Your task to perform on an android device: open chrome and create a bookmark for the current page Image 0: 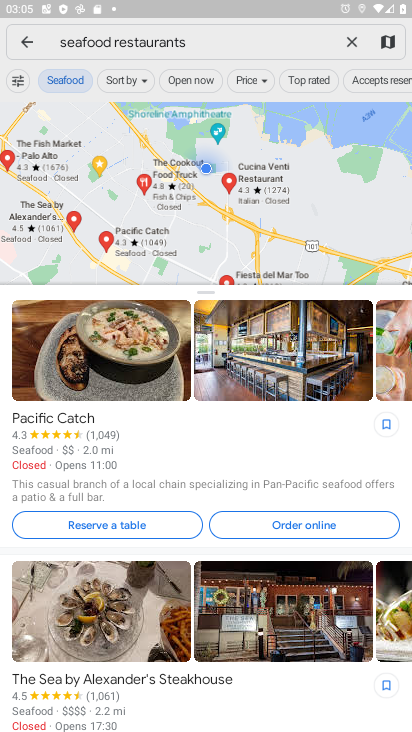
Step 0: press home button
Your task to perform on an android device: open chrome and create a bookmark for the current page Image 1: 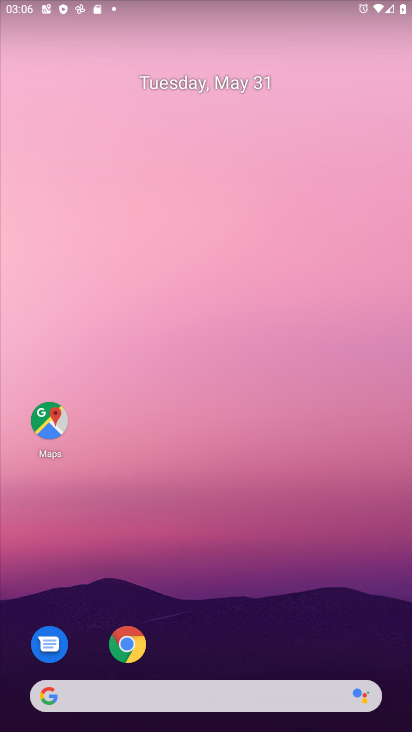
Step 1: click (311, 573)
Your task to perform on an android device: open chrome and create a bookmark for the current page Image 2: 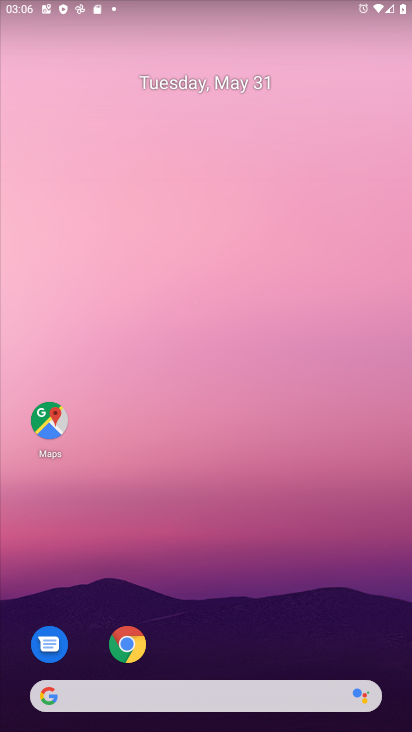
Step 2: click (122, 645)
Your task to perform on an android device: open chrome and create a bookmark for the current page Image 3: 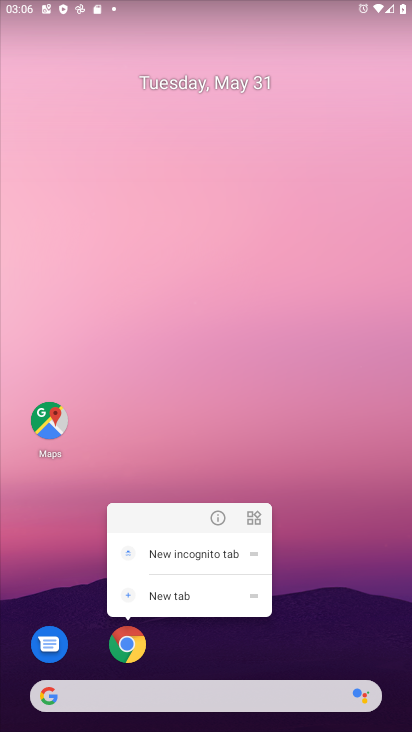
Step 3: click (130, 644)
Your task to perform on an android device: open chrome and create a bookmark for the current page Image 4: 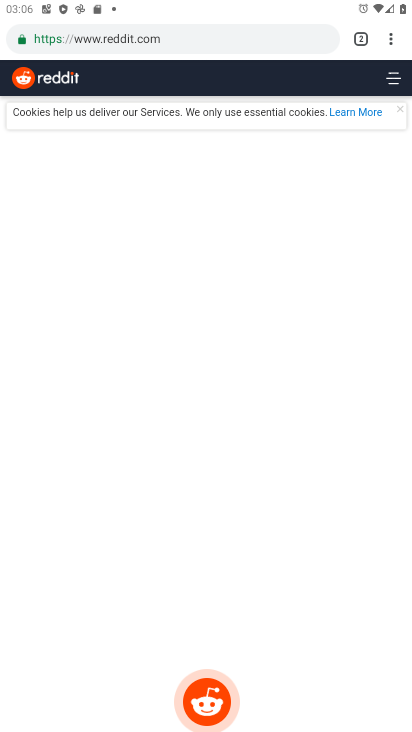
Step 4: task complete